Your task to perform on an android device: Open internet settings Image 0: 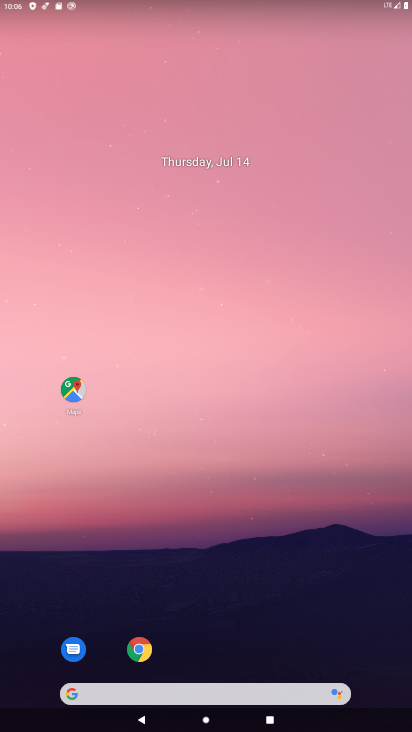
Step 0: drag from (236, 641) to (242, 215)
Your task to perform on an android device: Open internet settings Image 1: 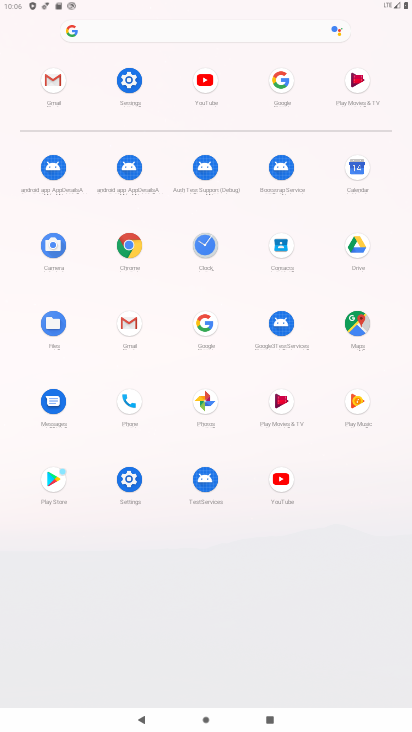
Step 1: click (125, 94)
Your task to perform on an android device: Open internet settings Image 2: 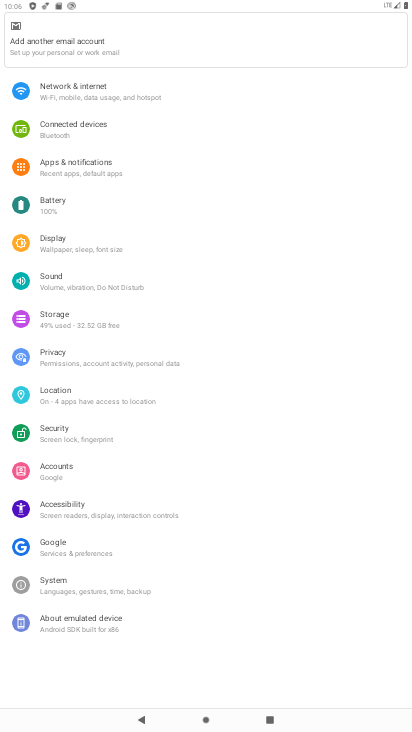
Step 2: click (120, 93)
Your task to perform on an android device: Open internet settings Image 3: 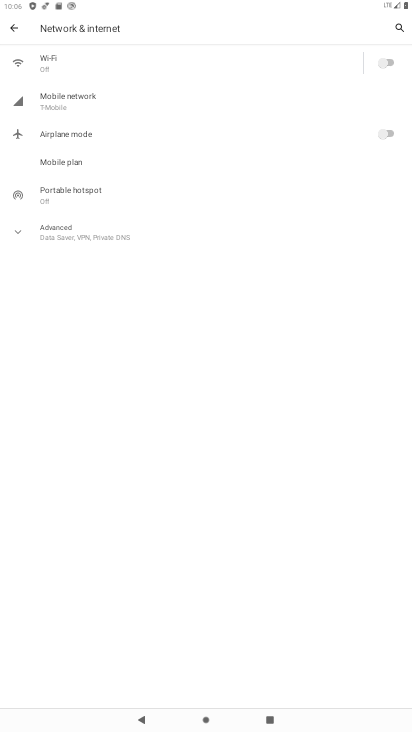
Step 3: task complete